Your task to perform on an android device: Clear all items from cart on bestbuy.com. Image 0: 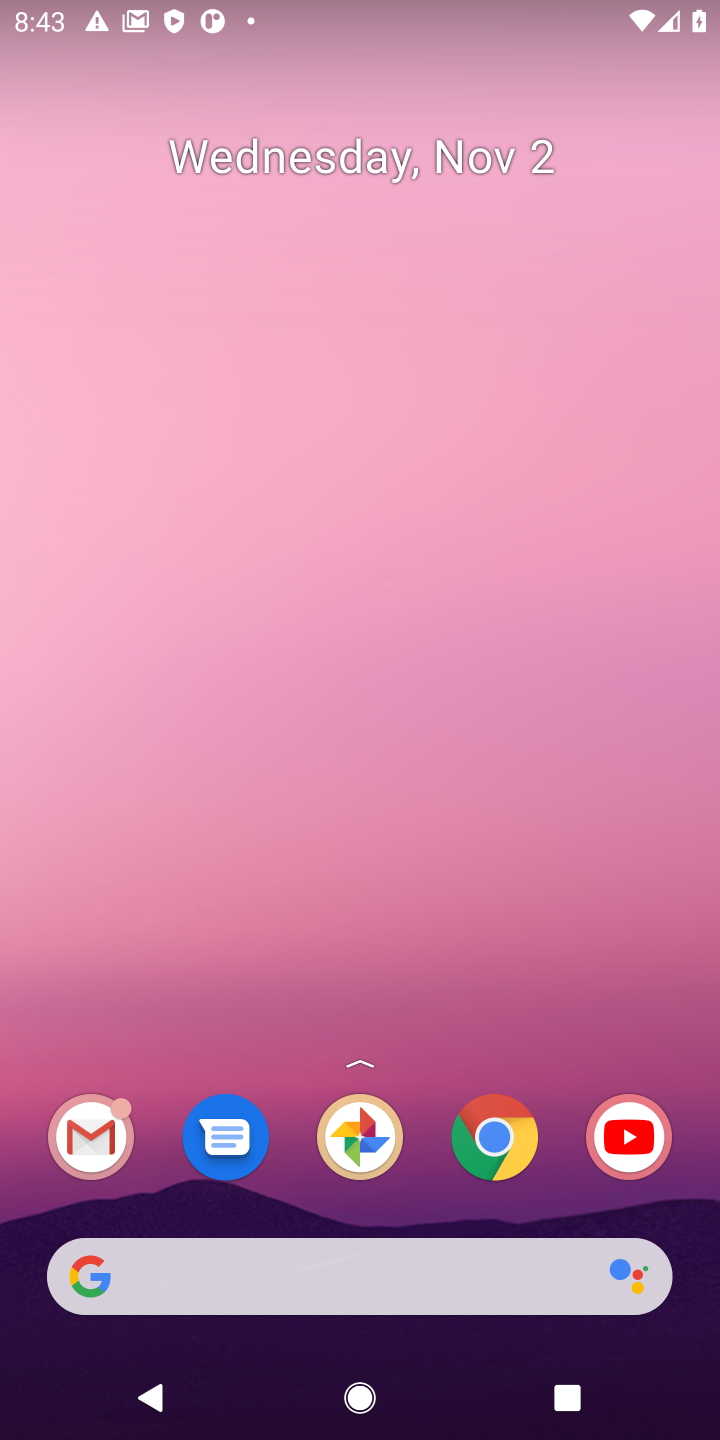
Step 0: click (484, 1137)
Your task to perform on an android device: Clear all items from cart on bestbuy.com. Image 1: 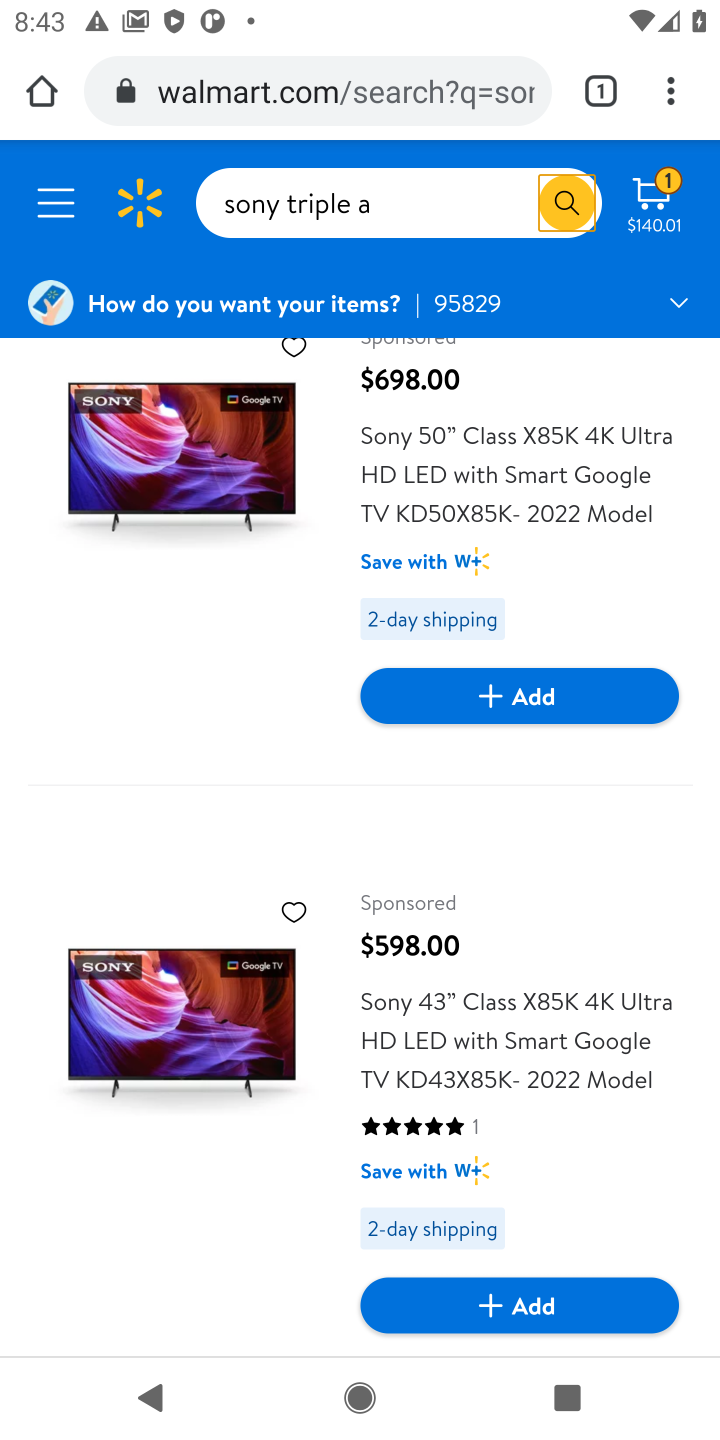
Step 1: click (396, 54)
Your task to perform on an android device: Clear all items from cart on bestbuy.com. Image 2: 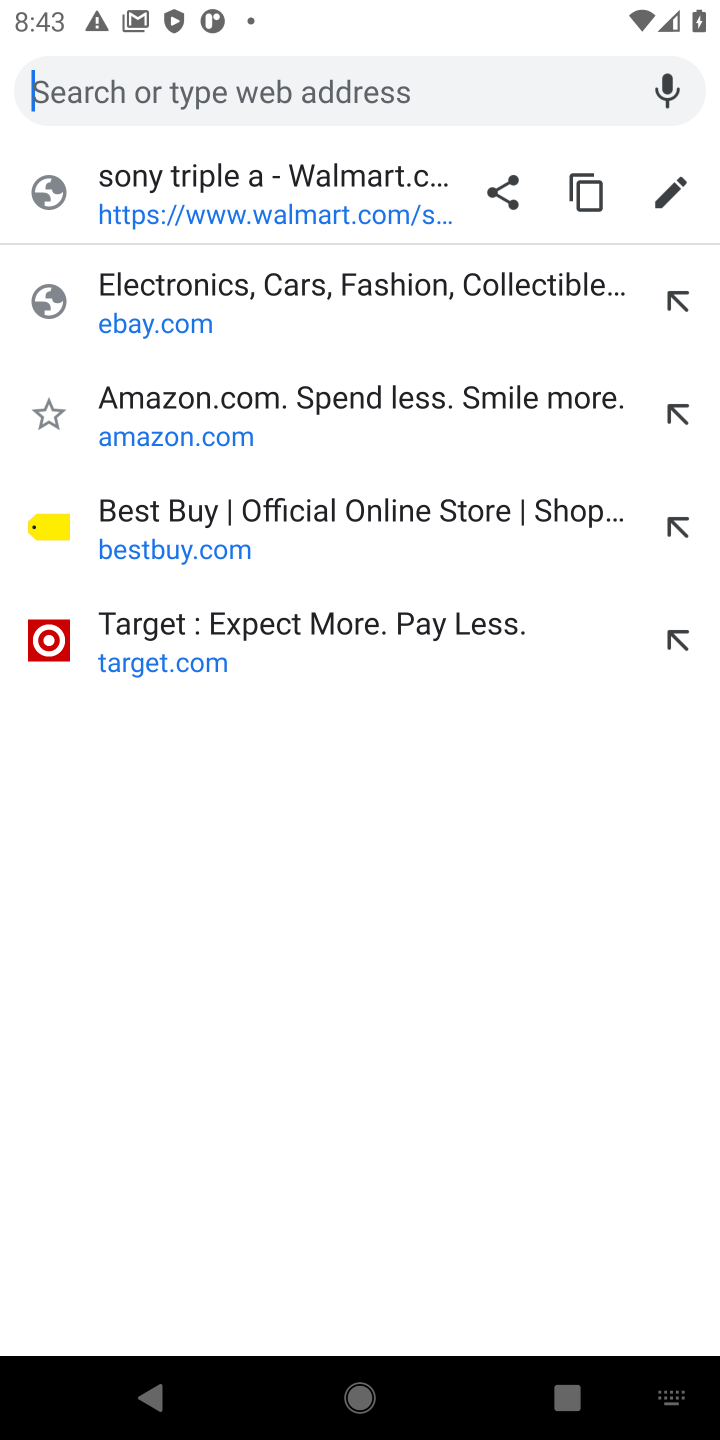
Step 2: type "bestbuy.com"
Your task to perform on an android device: Clear all items from cart on bestbuy.com. Image 3: 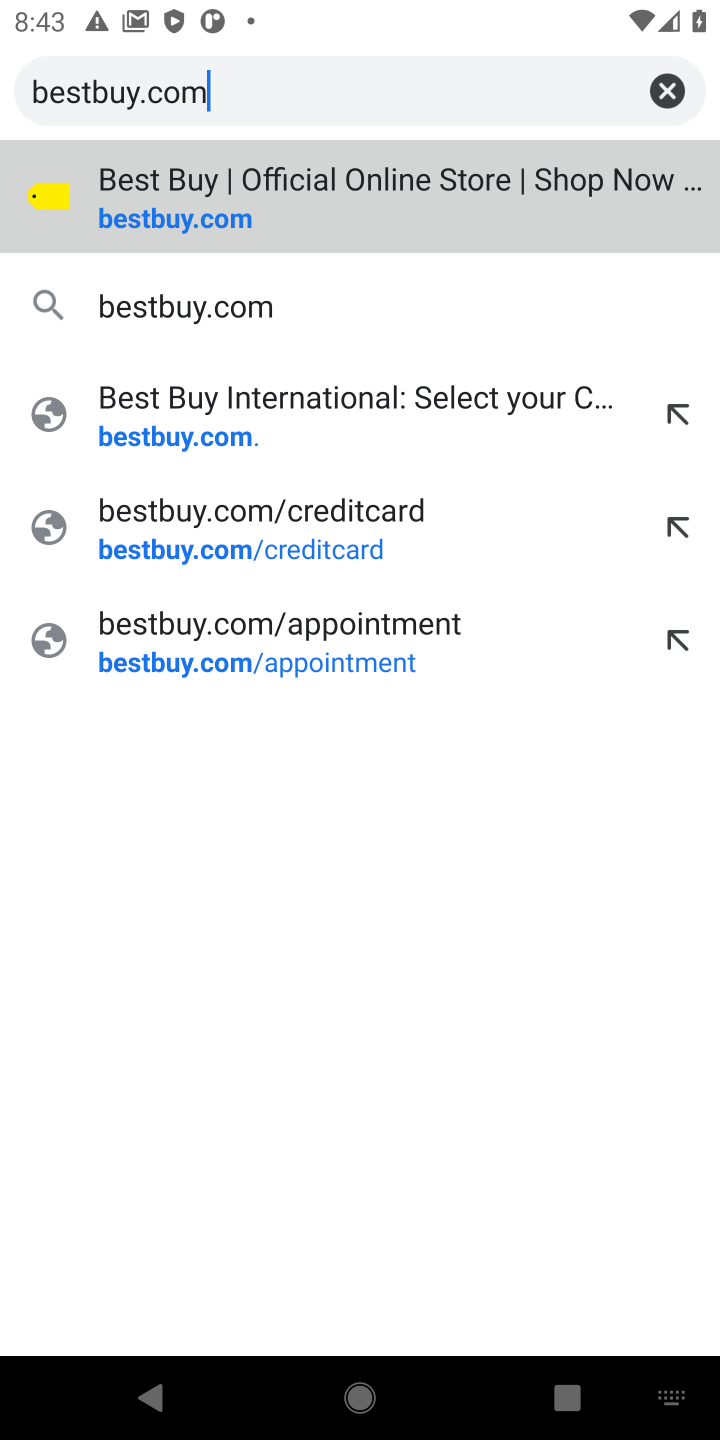
Step 3: click (147, 195)
Your task to perform on an android device: Clear all items from cart on bestbuy.com. Image 4: 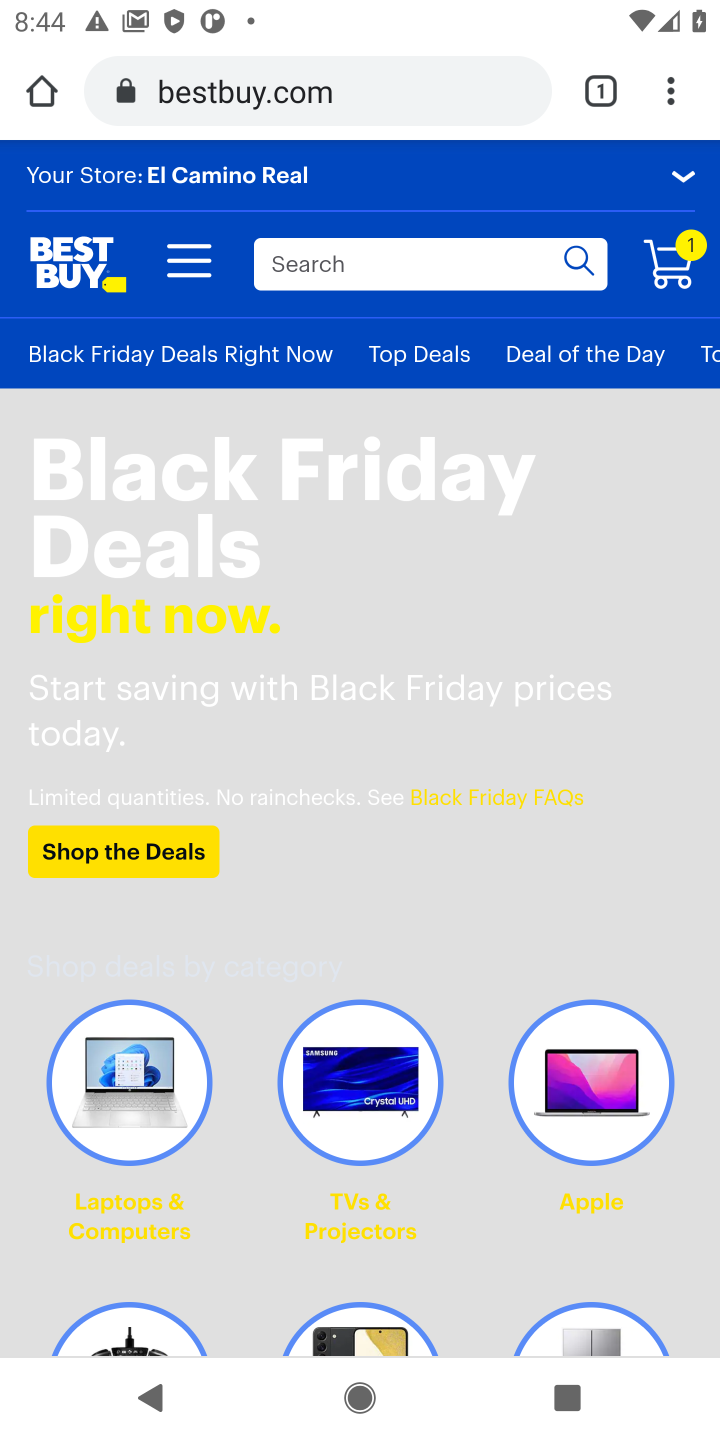
Step 4: click (659, 231)
Your task to perform on an android device: Clear all items from cart on bestbuy.com. Image 5: 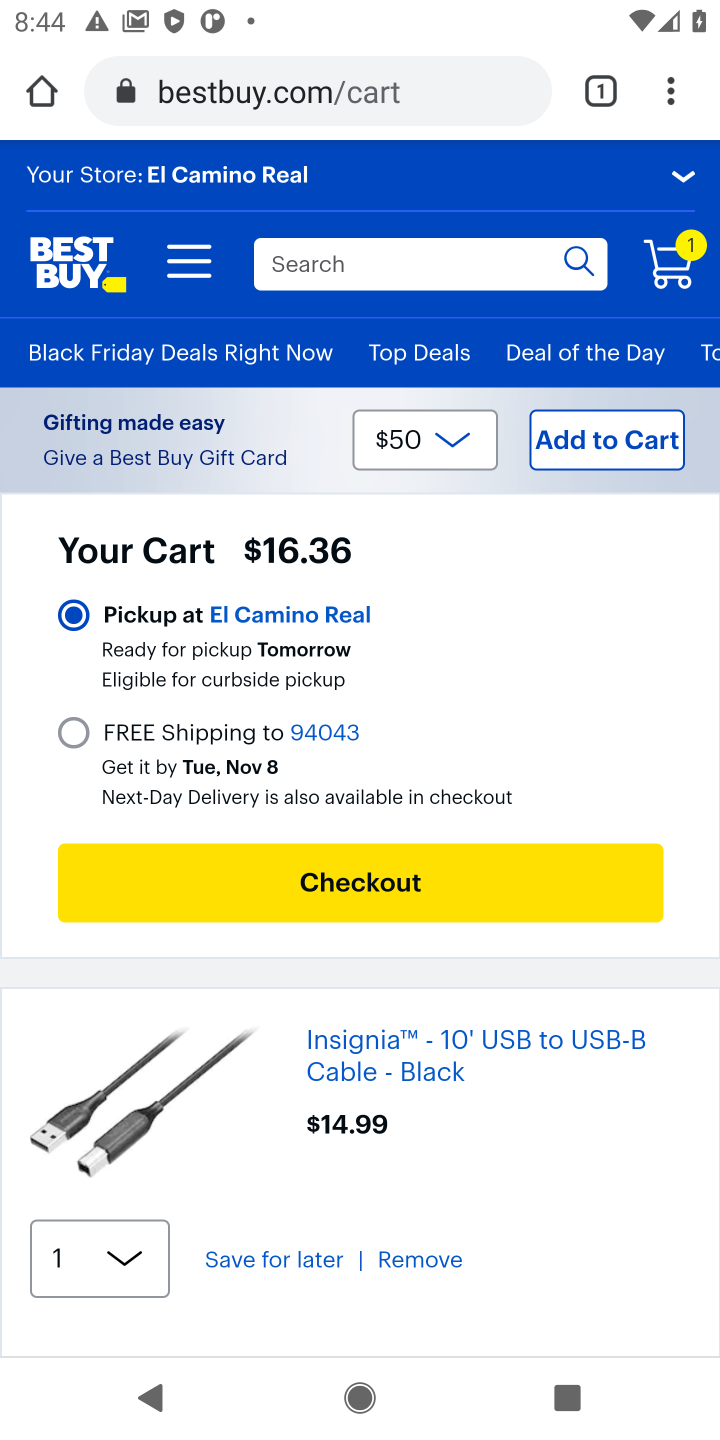
Step 5: drag from (212, 1107) to (321, 751)
Your task to perform on an android device: Clear all items from cart on bestbuy.com. Image 6: 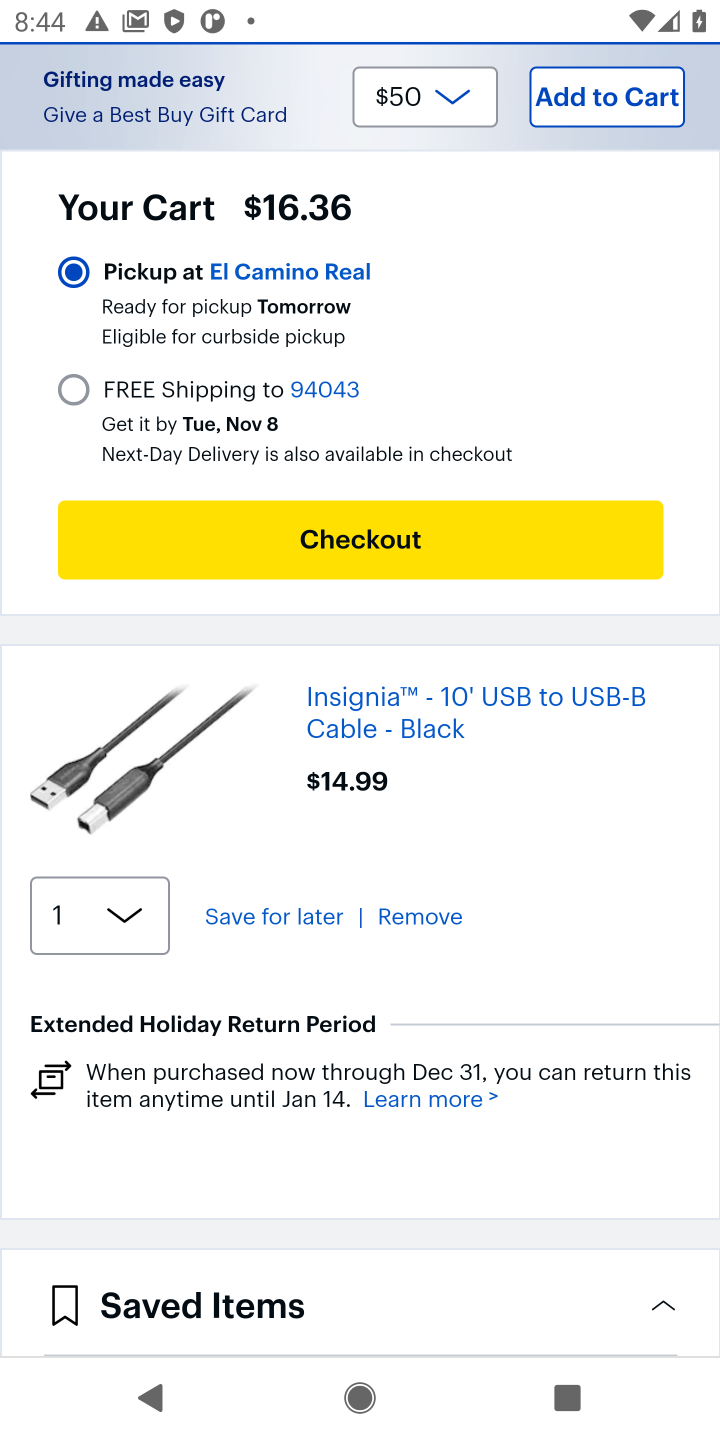
Step 6: click (407, 918)
Your task to perform on an android device: Clear all items from cart on bestbuy.com. Image 7: 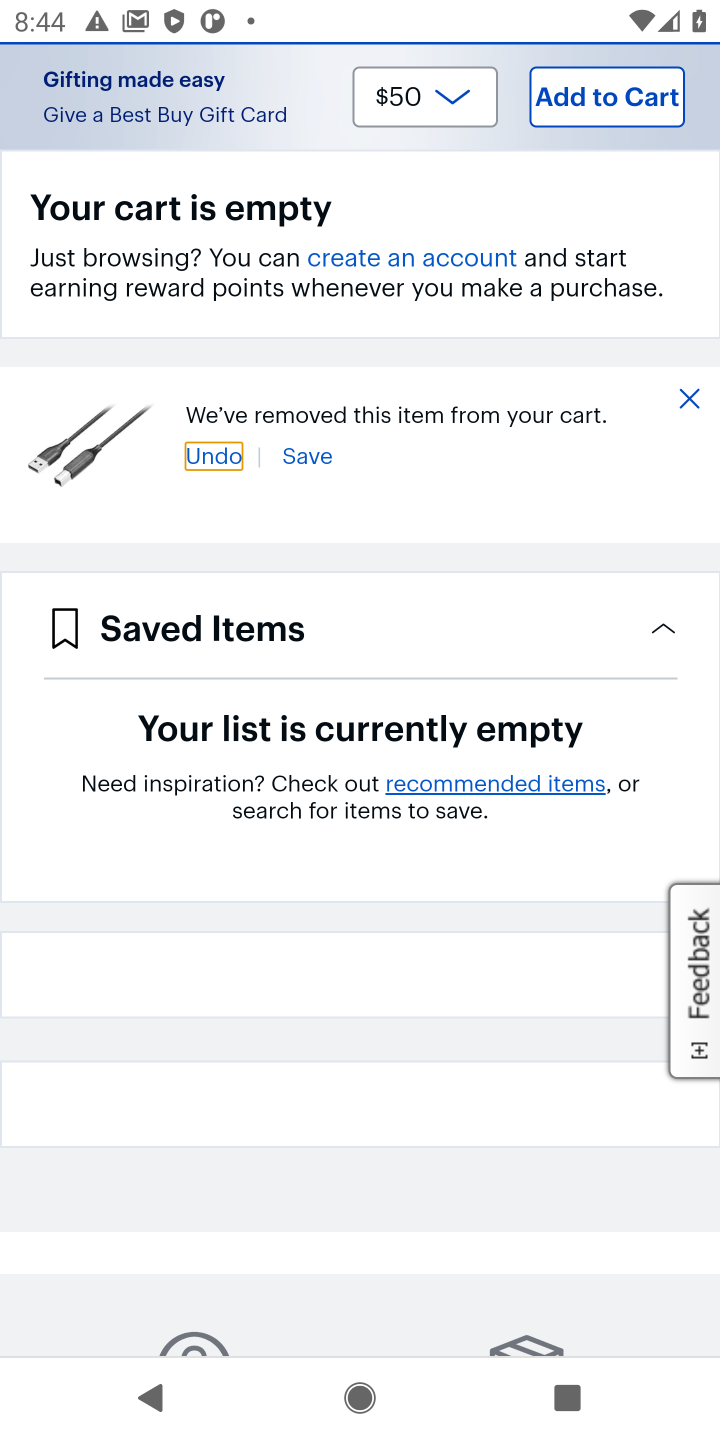
Step 7: task complete